Your task to perform on an android device: check battery use Image 0: 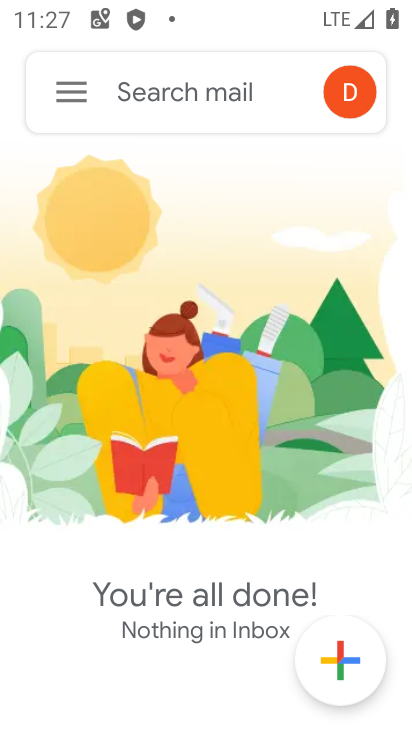
Step 0: press home button
Your task to perform on an android device: check battery use Image 1: 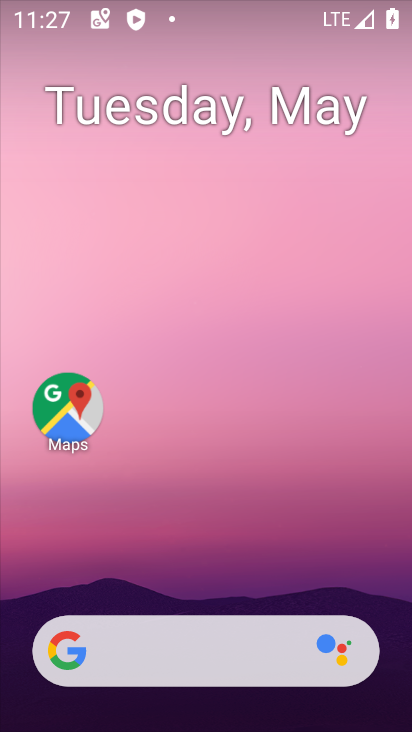
Step 1: drag from (206, 621) to (259, 95)
Your task to perform on an android device: check battery use Image 2: 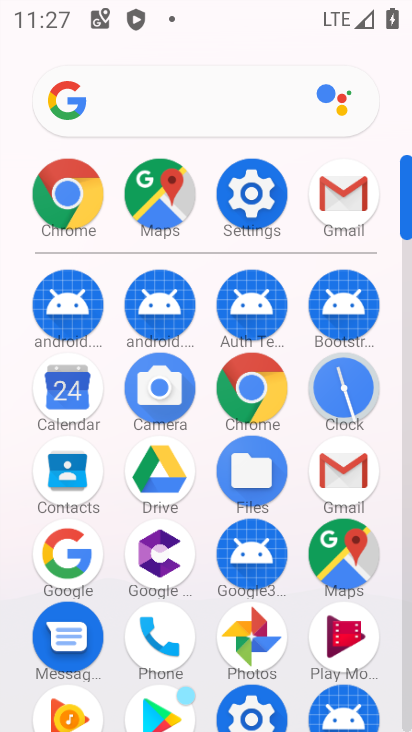
Step 2: click (255, 205)
Your task to perform on an android device: check battery use Image 3: 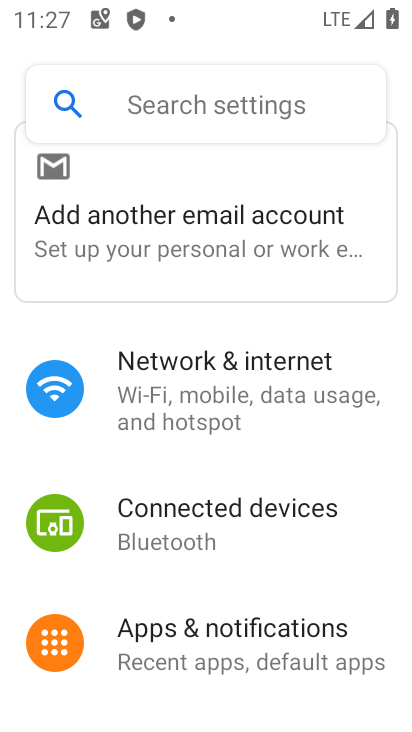
Step 3: drag from (259, 591) to (280, 184)
Your task to perform on an android device: check battery use Image 4: 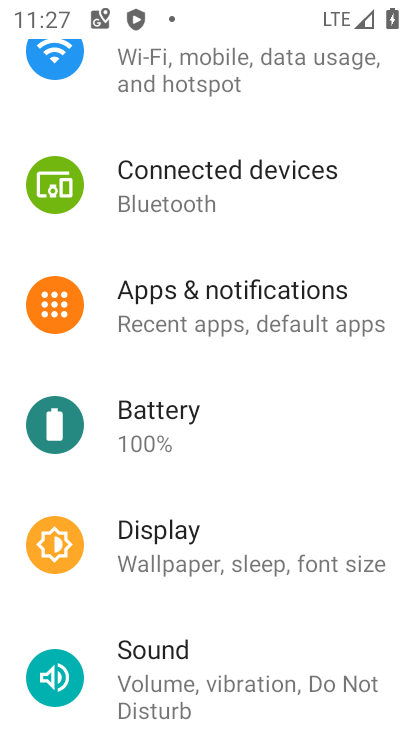
Step 4: click (200, 421)
Your task to perform on an android device: check battery use Image 5: 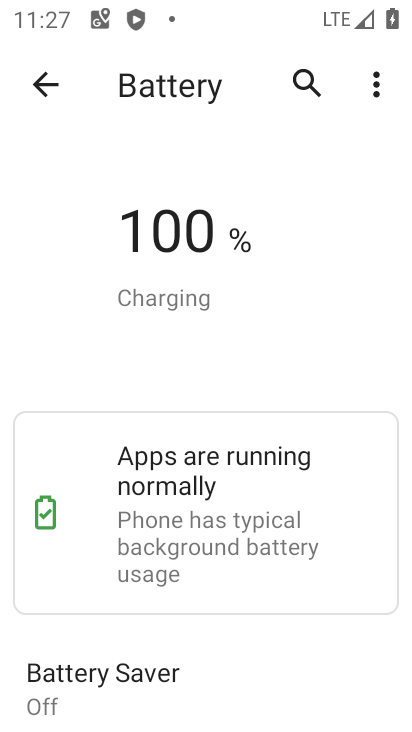
Step 5: click (378, 105)
Your task to perform on an android device: check battery use Image 6: 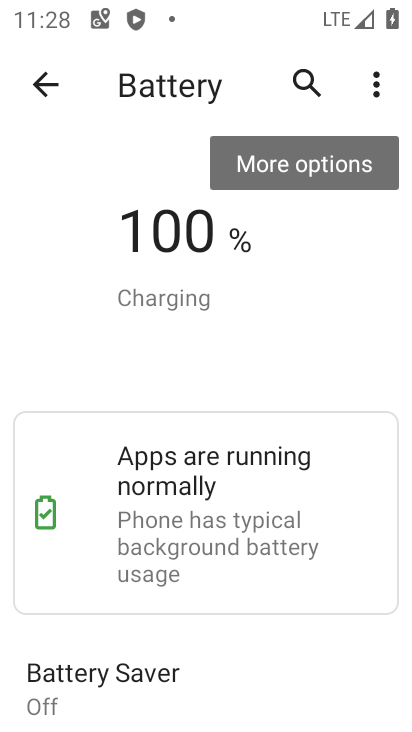
Step 6: click (371, 106)
Your task to perform on an android device: check battery use Image 7: 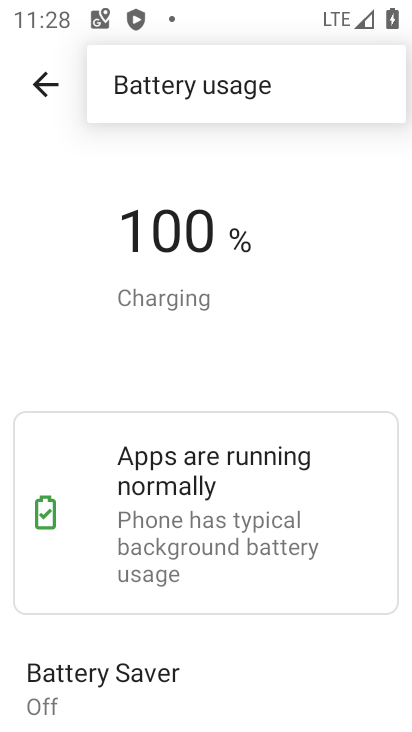
Step 7: click (270, 95)
Your task to perform on an android device: check battery use Image 8: 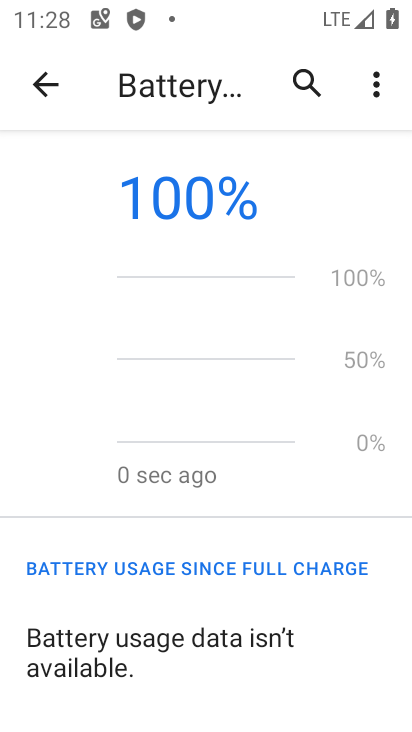
Step 8: task complete